Your task to perform on an android device: read, delete, or share a saved page in the chrome app Image 0: 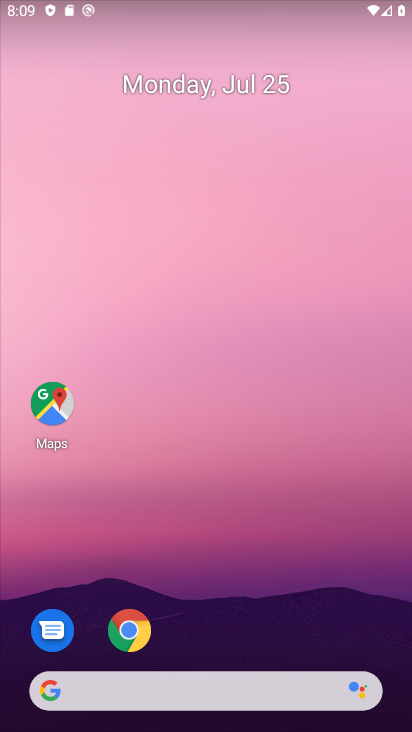
Step 0: click (119, 631)
Your task to perform on an android device: read, delete, or share a saved page in the chrome app Image 1: 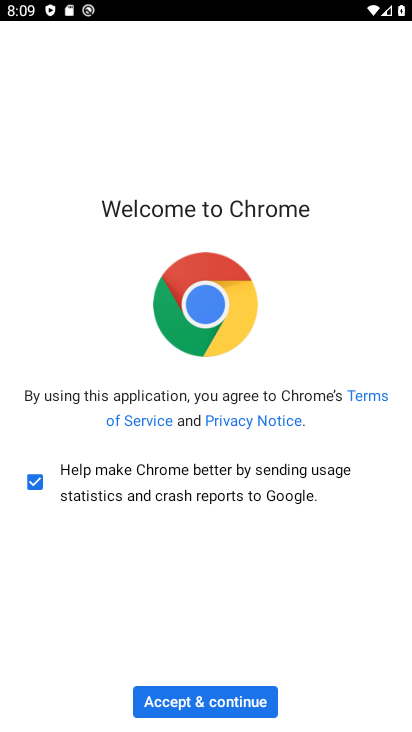
Step 1: click (210, 695)
Your task to perform on an android device: read, delete, or share a saved page in the chrome app Image 2: 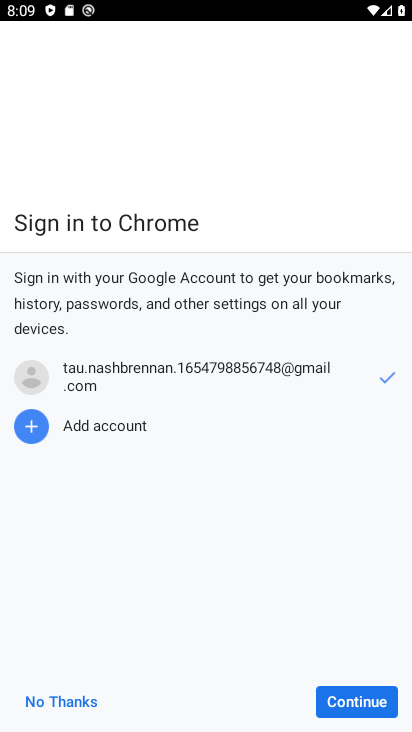
Step 2: click (343, 697)
Your task to perform on an android device: read, delete, or share a saved page in the chrome app Image 3: 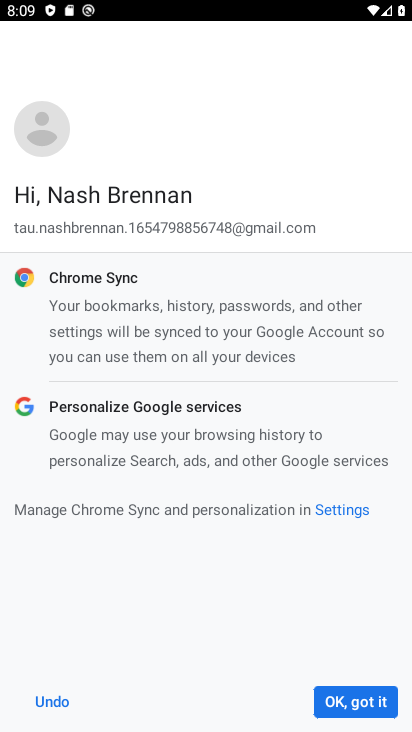
Step 3: click (342, 701)
Your task to perform on an android device: read, delete, or share a saved page in the chrome app Image 4: 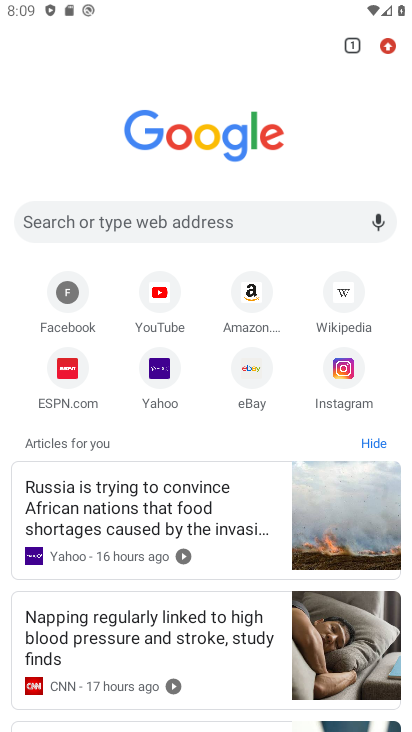
Step 4: click (170, 239)
Your task to perform on an android device: read, delete, or share a saved page in the chrome app Image 5: 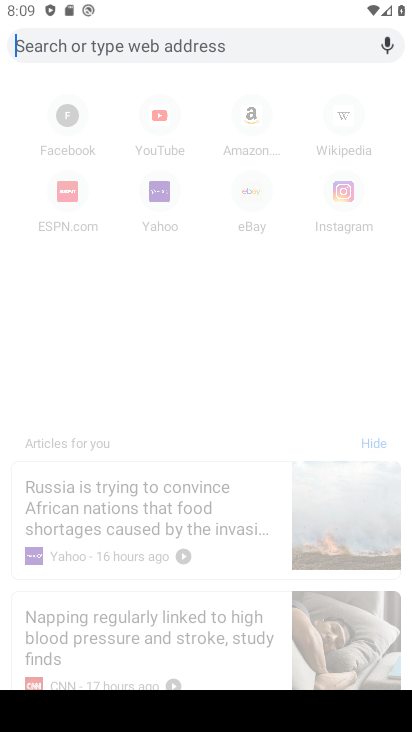
Step 5: task complete